Your task to perform on an android device: Go to Yahoo.com Image 0: 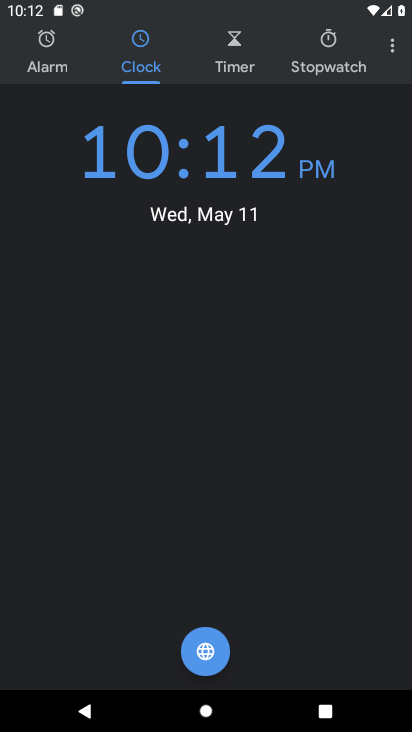
Step 0: press home button
Your task to perform on an android device: Go to Yahoo.com Image 1: 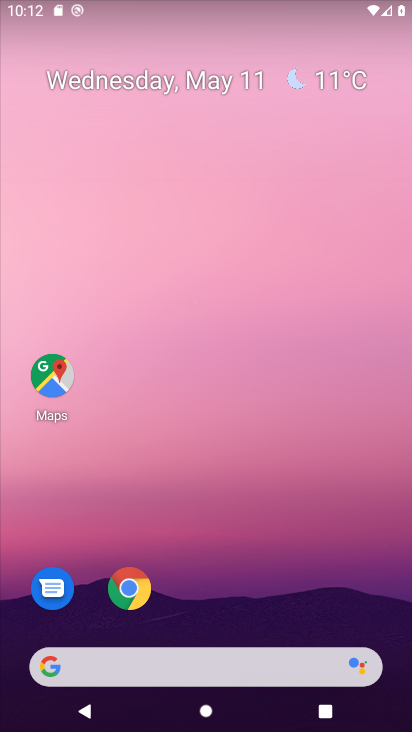
Step 1: drag from (243, 560) to (244, 170)
Your task to perform on an android device: Go to Yahoo.com Image 2: 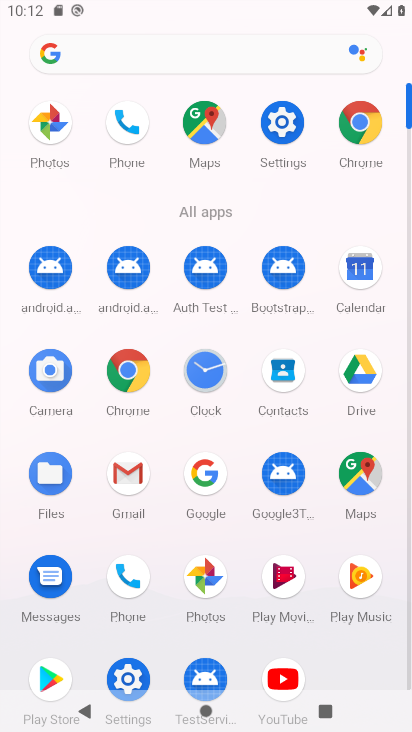
Step 2: click (131, 382)
Your task to perform on an android device: Go to Yahoo.com Image 3: 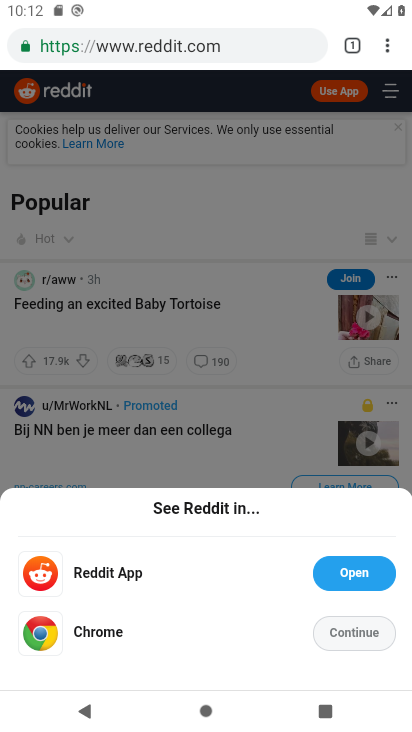
Step 3: click (171, 47)
Your task to perform on an android device: Go to Yahoo.com Image 4: 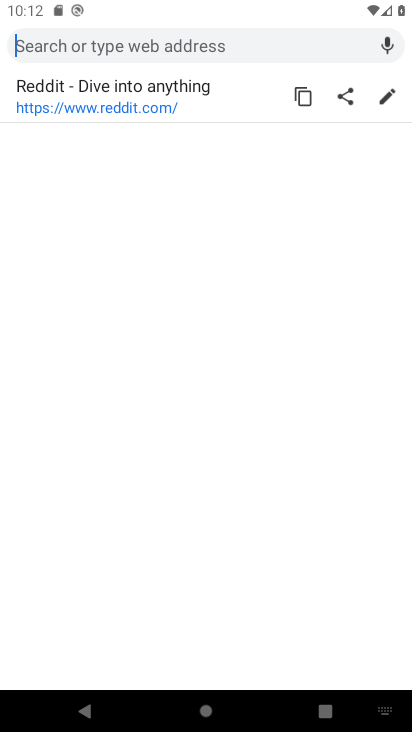
Step 4: type "yahoo.com"
Your task to perform on an android device: Go to Yahoo.com Image 5: 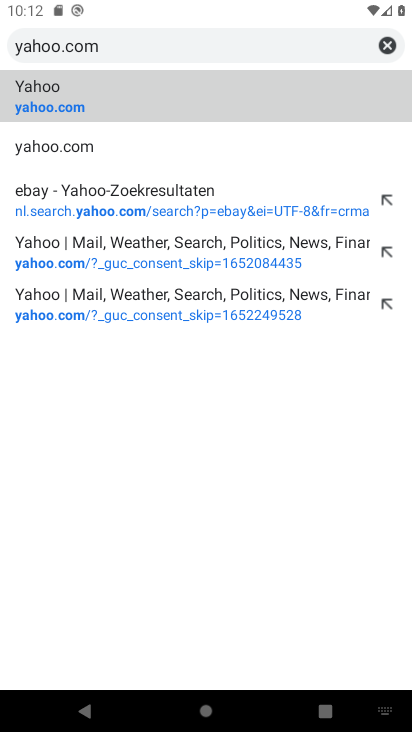
Step 5: click (74, 108)
Your task to perform on an android device: Go to Yahoo.com Image 6: 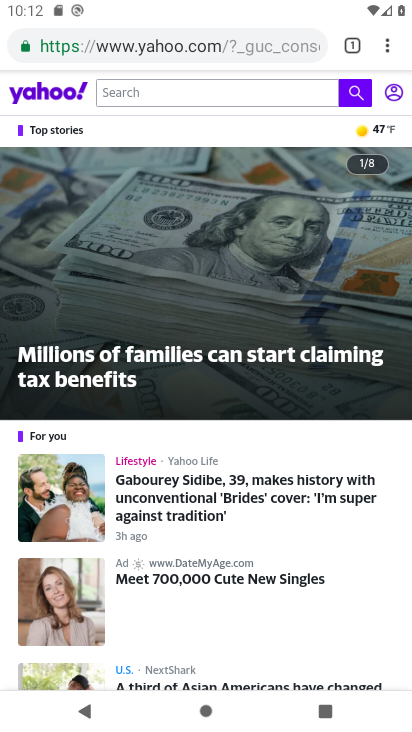
Step 6: task complete